Your task to perform on an android device: Search for sushi restaurants on Maps Image 0: 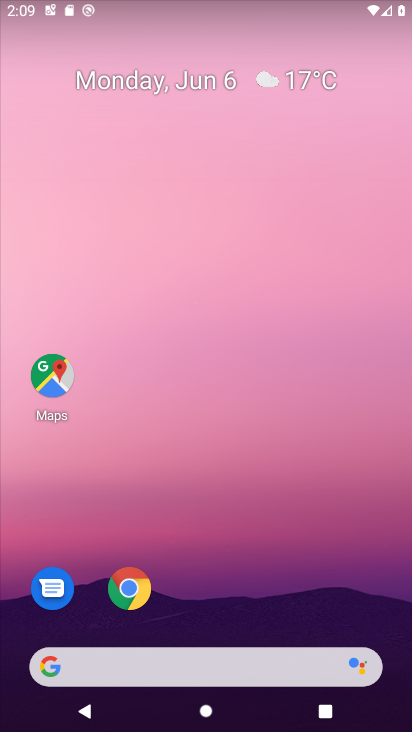
Step 0: click (59, 377)
Your task to perform on an android device: Search for sushi restaurants on Maps Image 1: 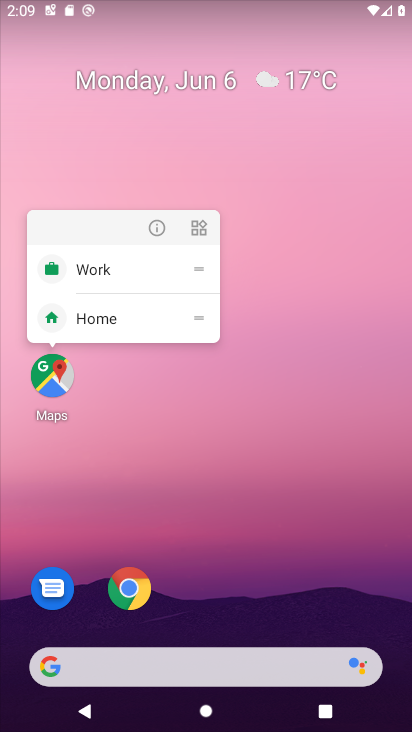
Step 1: click (43, 379)
Your task to perform on an android device: Search for sushi restaurants on Maps Image 2: 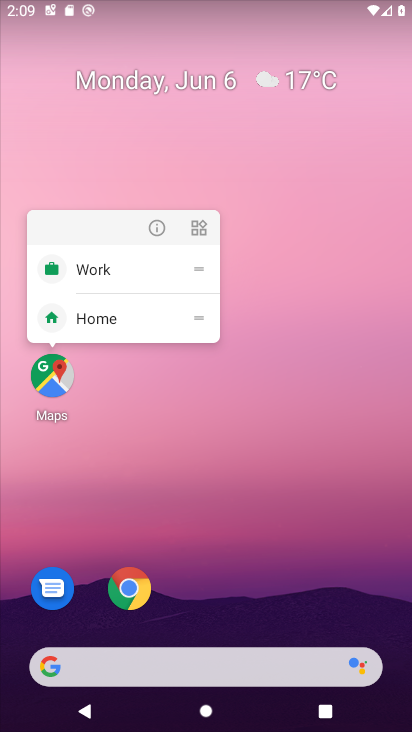
Step 2: click (43, 379)
Your task to perform on an android device: Search for sushi restaurants on Maps Image 3: 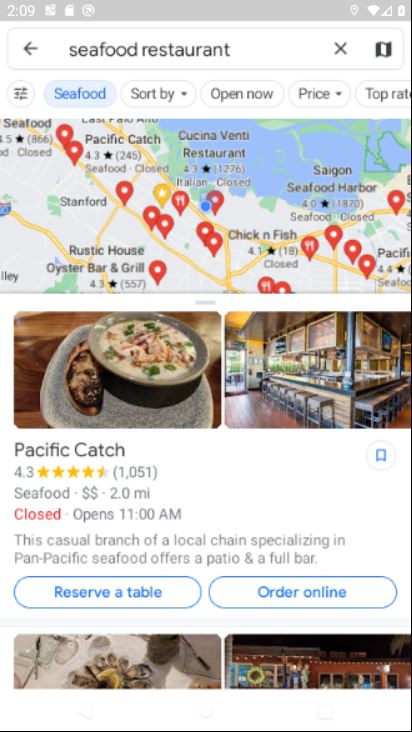
Step 3: click (344, 42)
Your task to perform on an android device: Search for sushi restaurants on Maps Image 4: 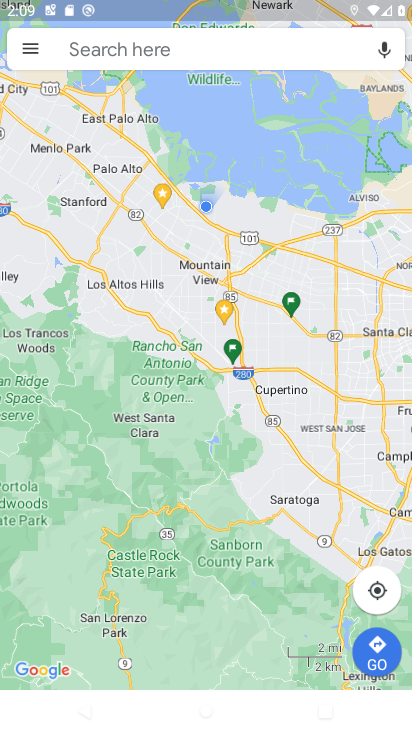
Step 4: click (270, 58)
Your task to perform on an android device: Search for sushi restaurants on Maps Image 5: 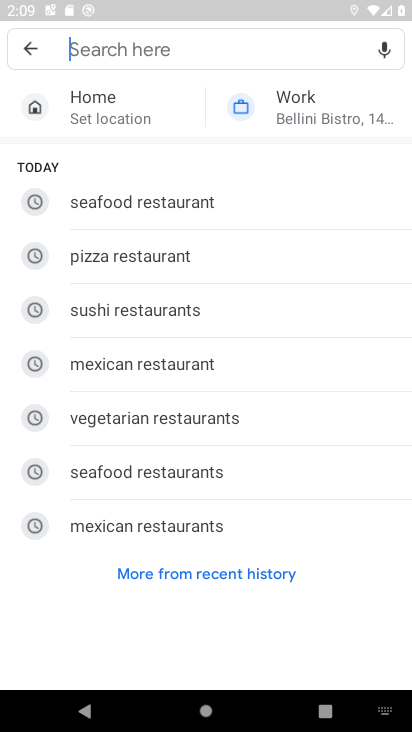
Step 5: click (158, 312)
Your task to perform on an android device: Search for sushi restaurants on Maps Image 6: 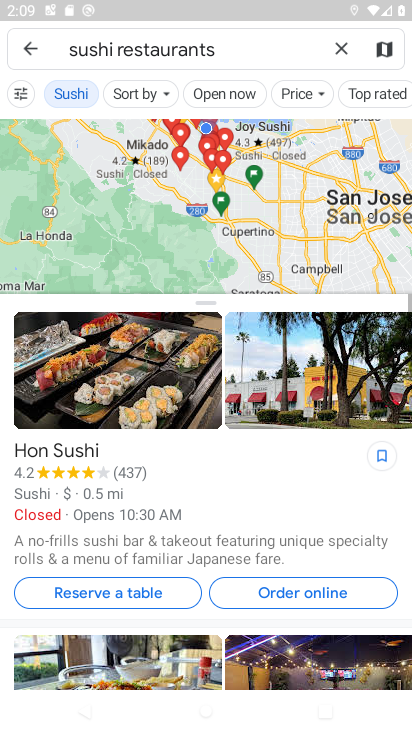
Step 6: task complete